Your task to perform on an android device: Go to privacy settings Image 0: 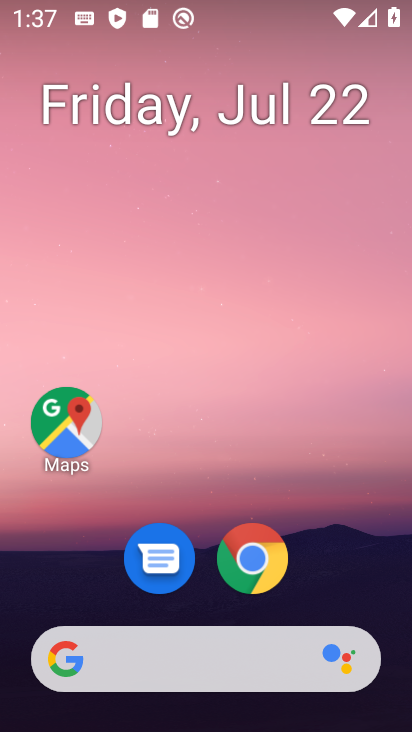
Step 0: drag from (362, 593) to (314, 340)
Your task to perform on an android device: Go to privacy settings Image 1: 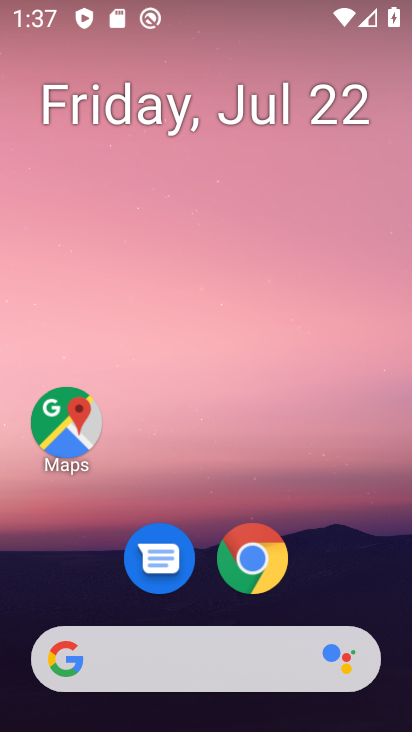
Step 1: drag from (370, 576) to (271, 101)
Your task to perform on an android device: Go to privacy settings Image 2: 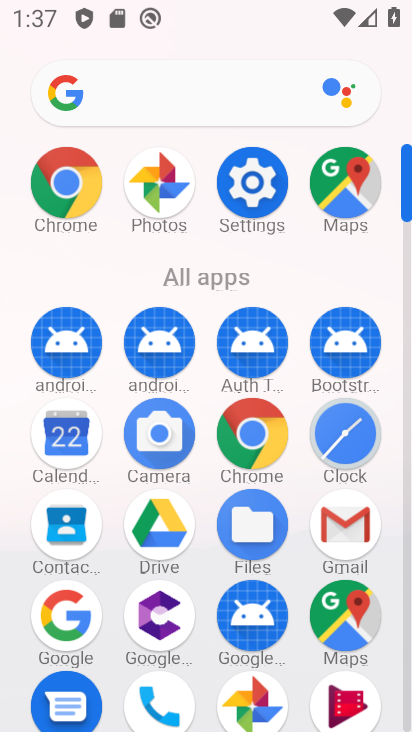
Step 2: click (265, 180)
Your task to perform on an android device: Go to privacy settings Image 3: 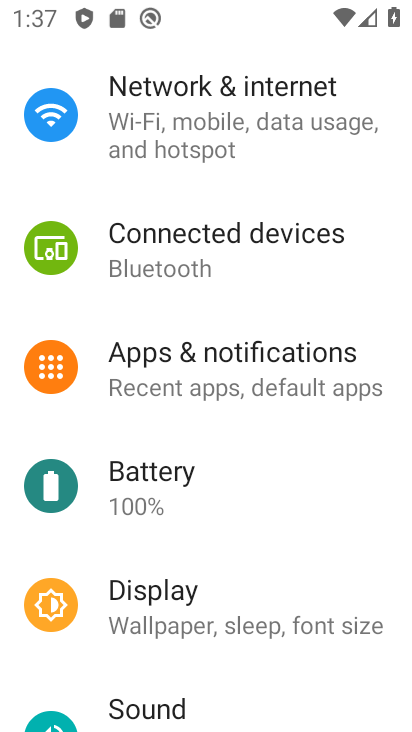
Step 3: drag from (217, 591) to (153, 188)
Your task to perform on an android device: Go to privacy settings Image 4: 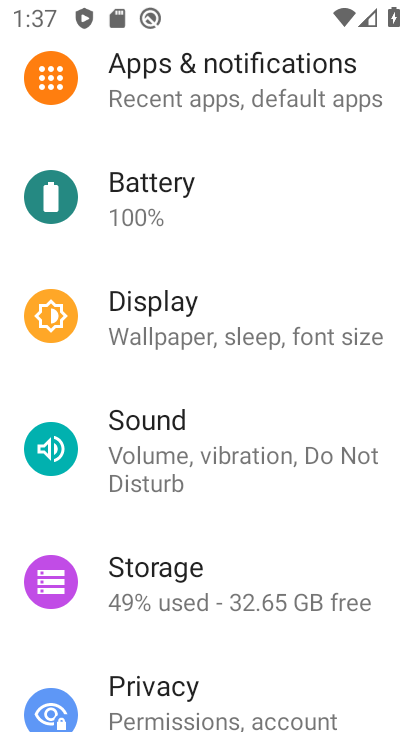
Step 4: click (235, 702)
Your task to perform on an android device: Go to privacy settings Image 5: 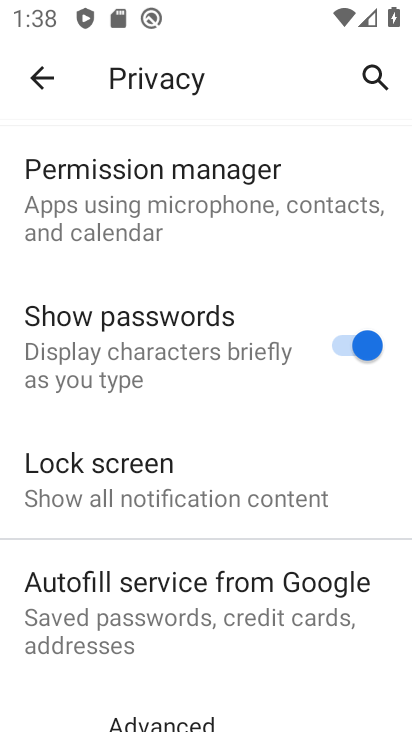
Step 5: task complete